Your task to perform on an android device: How do I get to the nearest Burger King? Image 0: 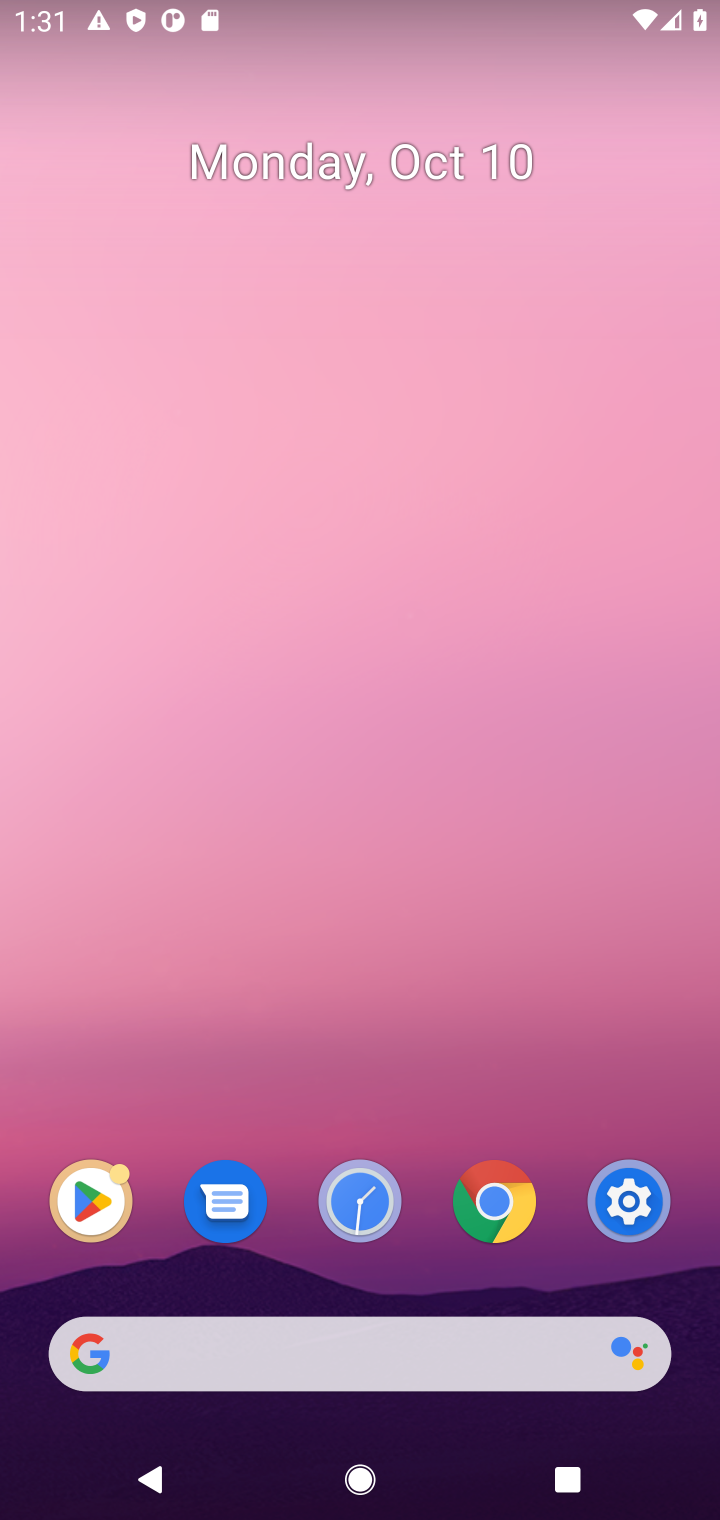
Step 0: click (429, 1314)
Your task to perform on an android device: How do I get to the nearest Burger King? Image 1: 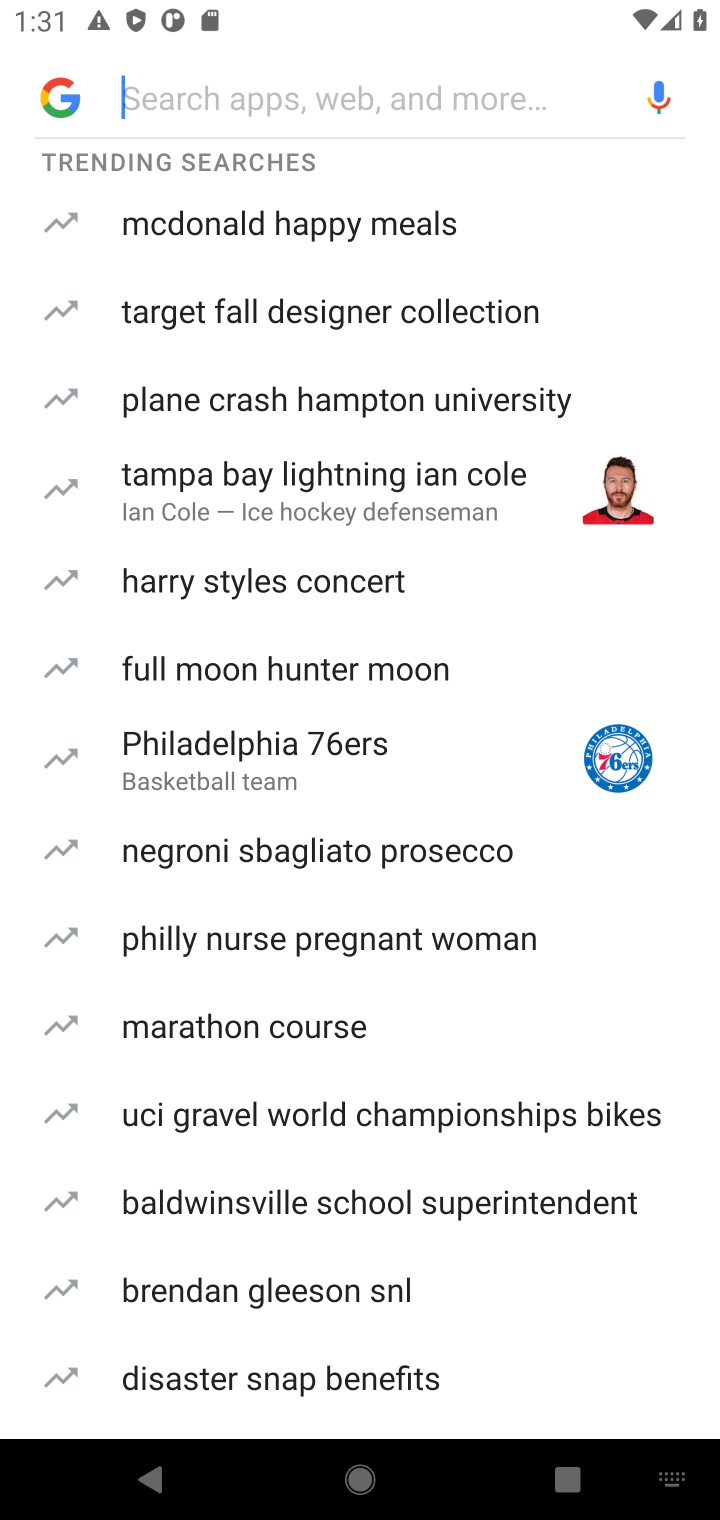
Step 1: type "nearest Burger King"
Your task to perform on an android device: How do I get to the nearest Burger King? Image 2: 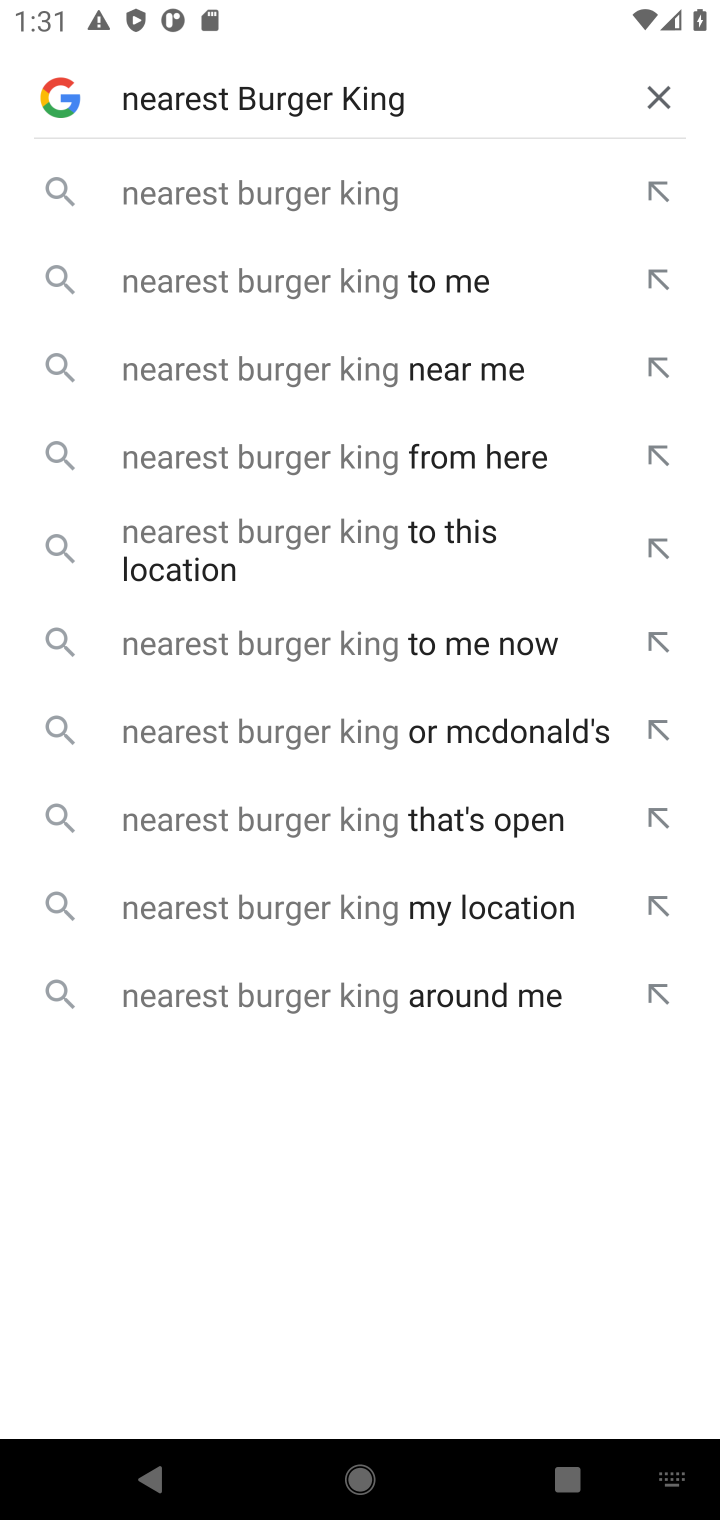
Step 2: type ""
Your task to perform on an android device: How do I get to the nearest Burger King? Image 3: 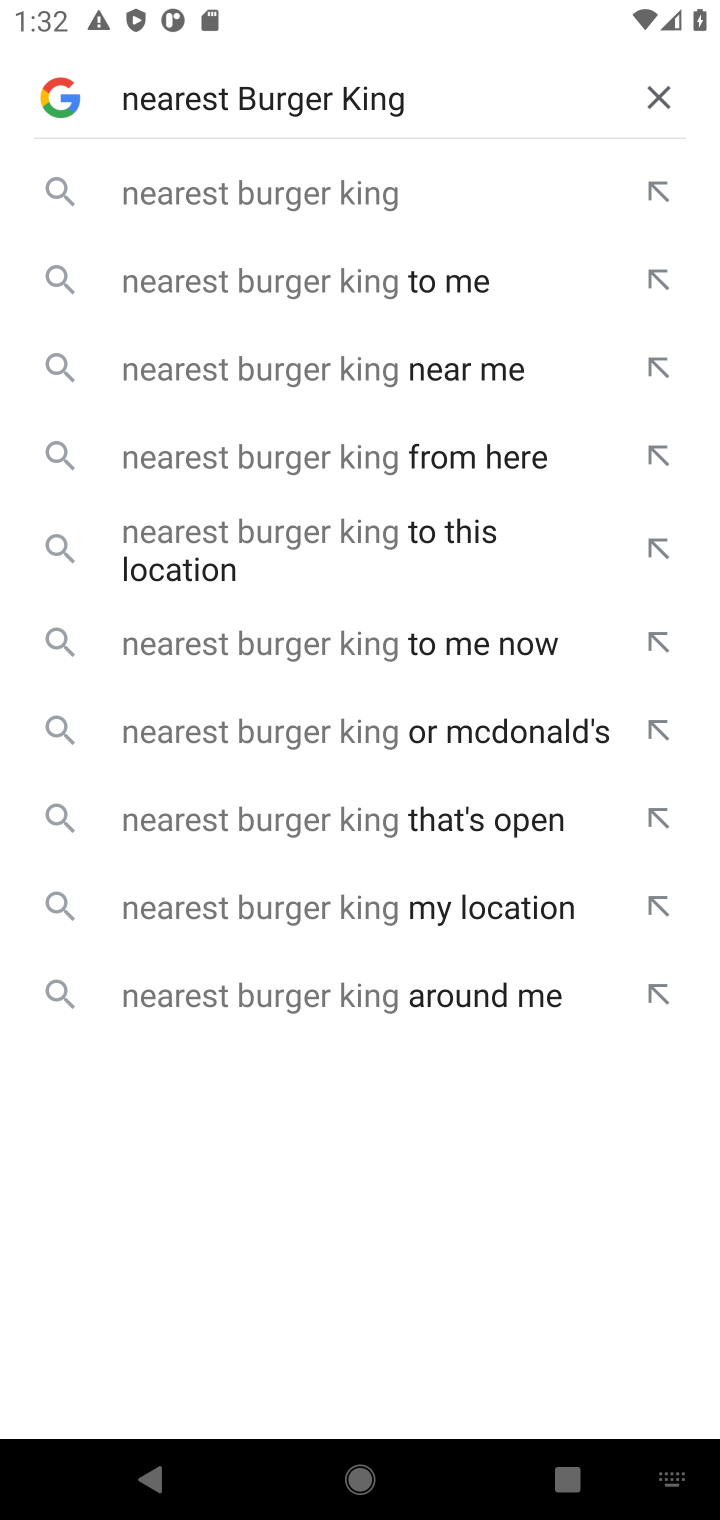
Step 3: press enter
Your task to perform on an android device: How do I get to the nearest Burger King? Image 4: 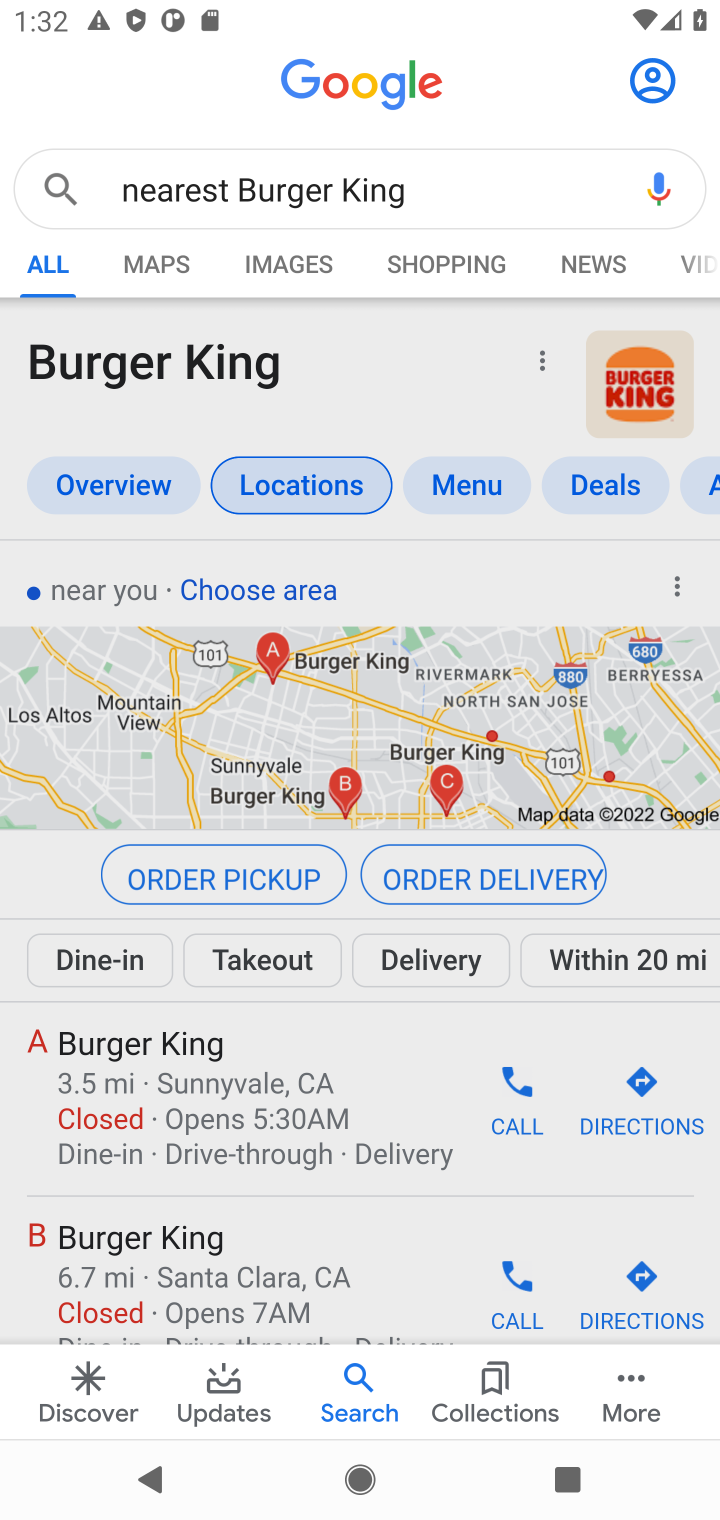
Step 4: drag from (393, 967) to (433, 607)
Your task to perform on an android device: How do I get to the nearest Burger King? Image 5: 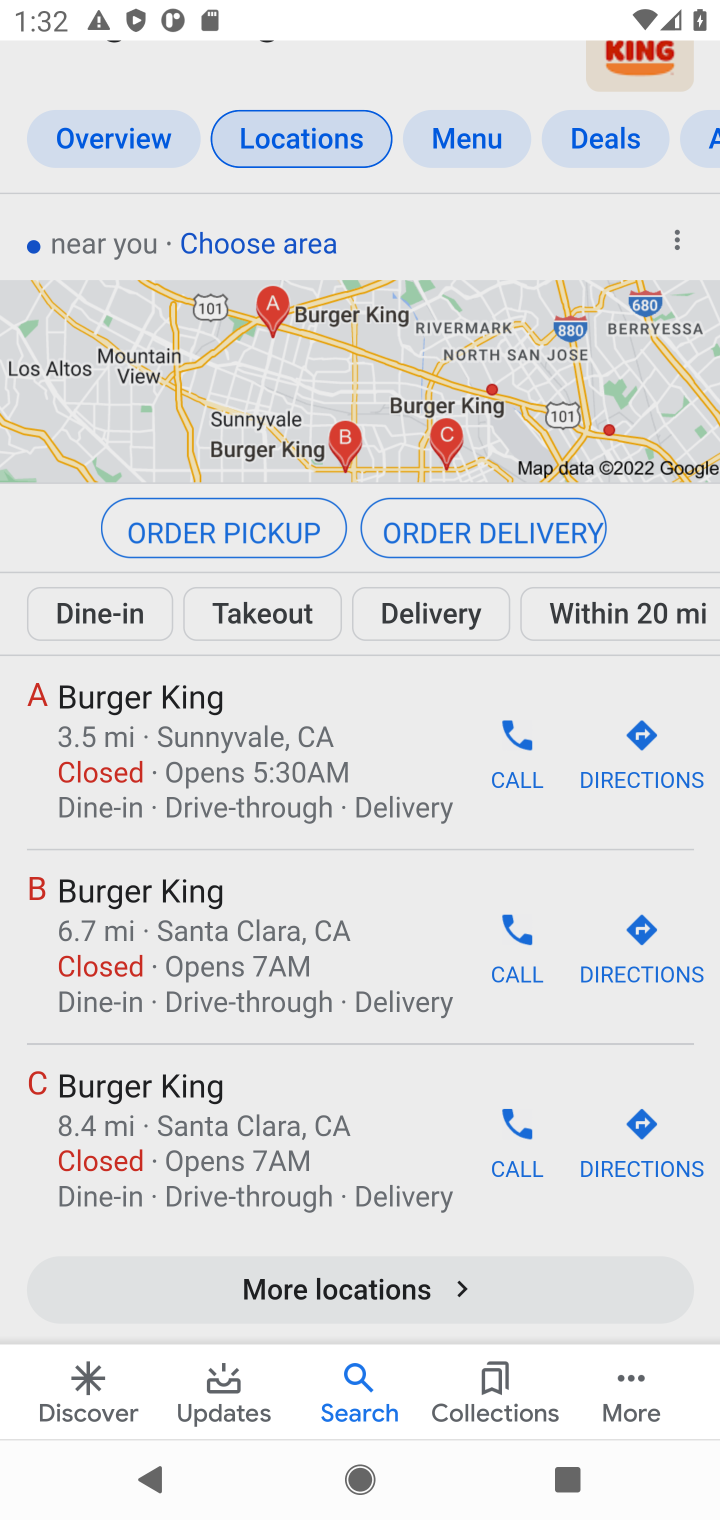
Step 5: drag from (384, 1072) to (393, 749)
Your task to perform on an android device: How do I get to the nearest Burger King? Image 6: 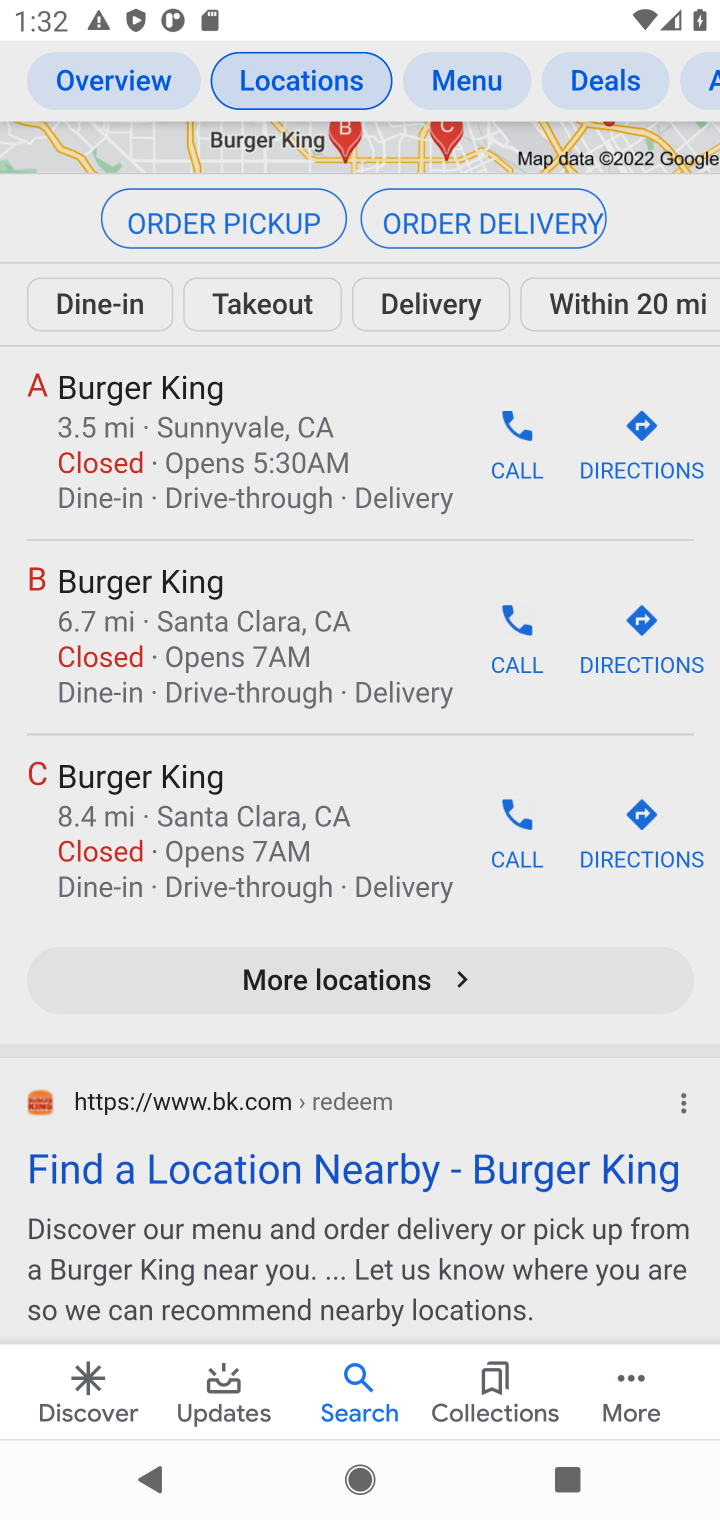
Step 6: click (439, 970)
Your task to perform on an android device: How do I get to the nearest Burger King? Image 7: 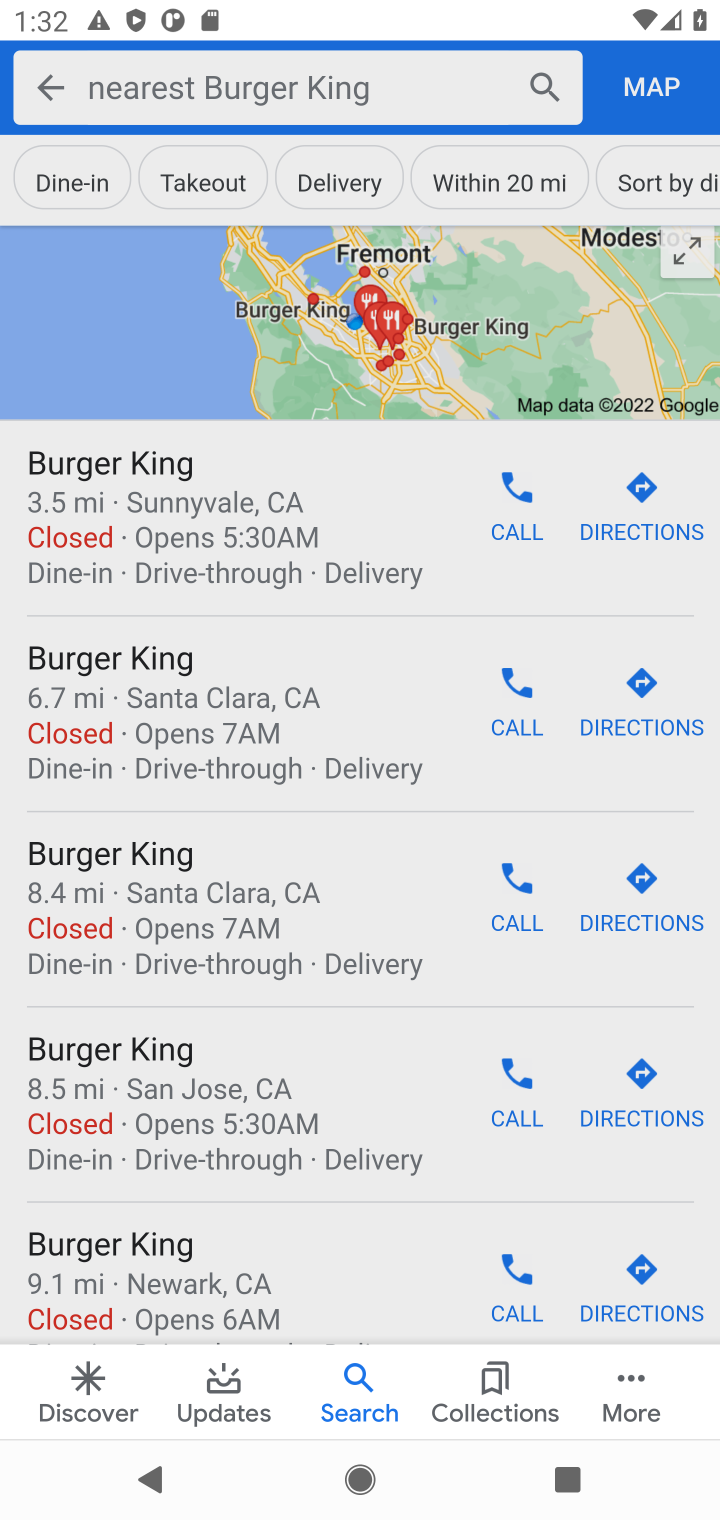
Step 7: task complete